Your task to perform on an android device: turn on javascript in the chrome app Image 0: 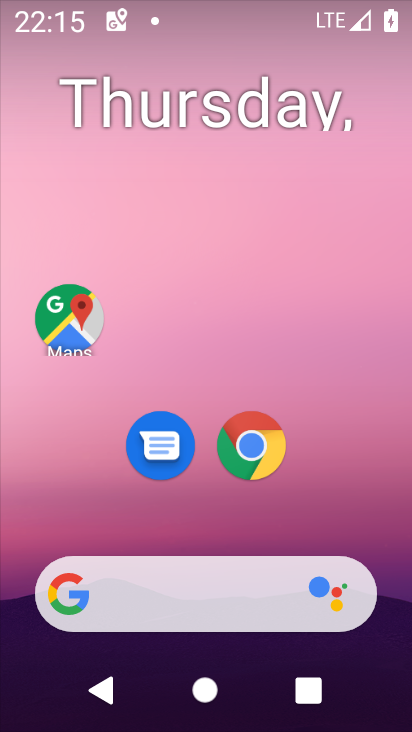
Step 0: drag from (234, 529) to (214, 194)
Your task to perform on an android device: turn on javascript in the chrome app Image 1: 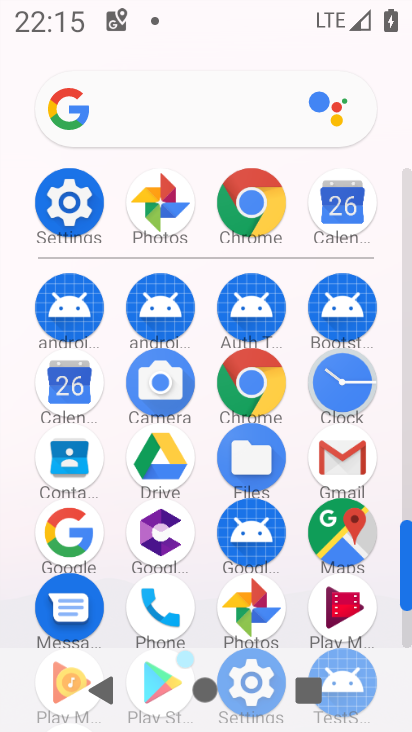
Step 1: drag from (198, 273) to (208, 103)
Your task to perform on an android device: turn on javascript in the chrome app Image 2: 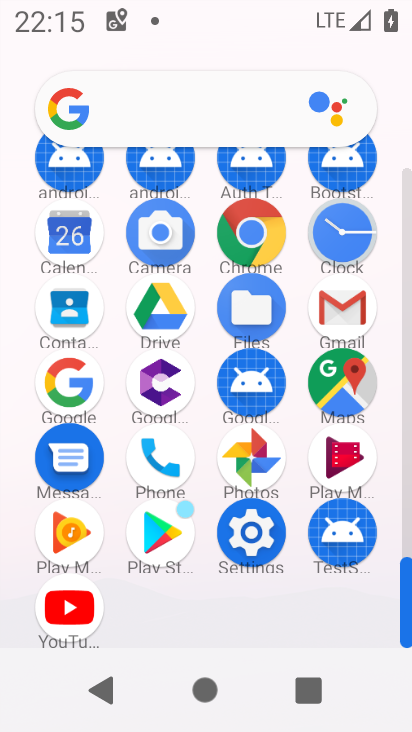
Step 2: click (243, 238)
Your task to perform on an android device: turn on javascript in the chrome app Image 3: 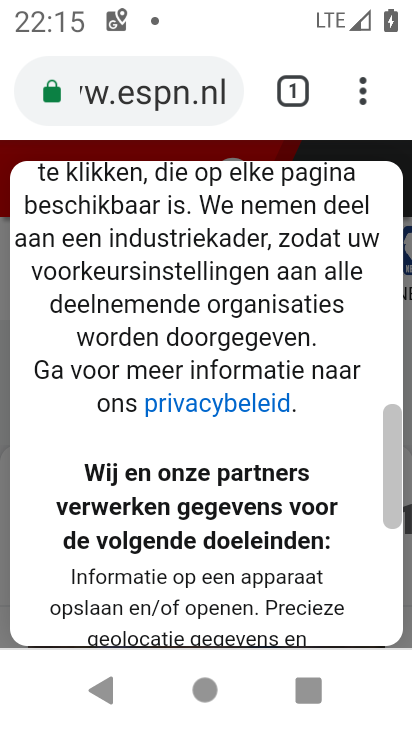
Step 3: click (366, 106)
Your task to perform on an android device: turn on javascript in the chrome app Image 4: 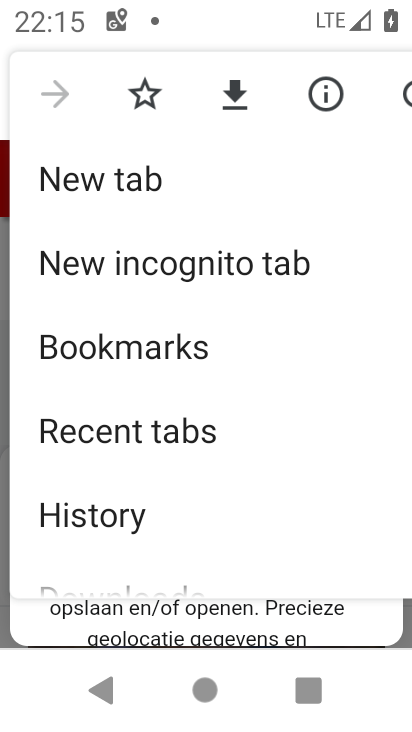
Step 4: drag from (195, 490) to (203, 165)
Your task to perform on an android device: turn on javascript in the chrome app Image 5: 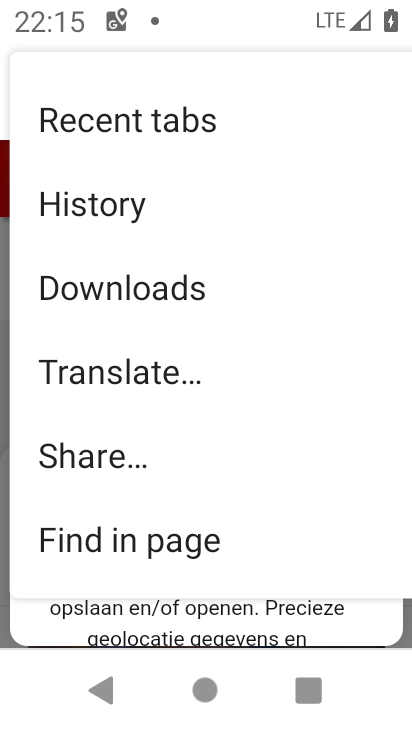
Step 5: drag from (169, 490) to (189, 203)
Your task to perform on an android device: turn on javascript in the chrome app Image 6: 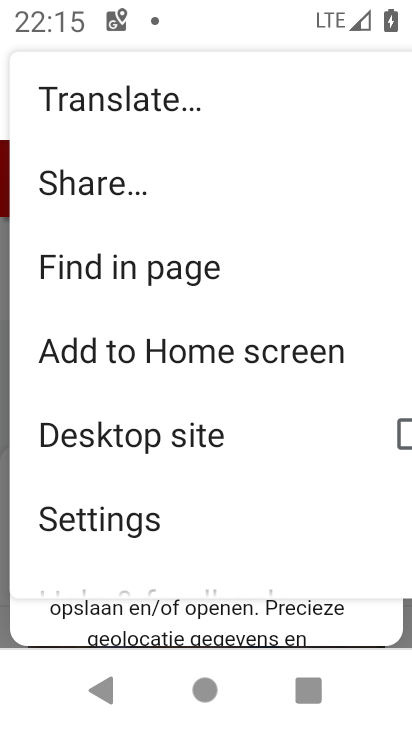
Step 6: click (165, 521)
Your task to perform on an android device: turn on javascript in the chrome app Image 7: 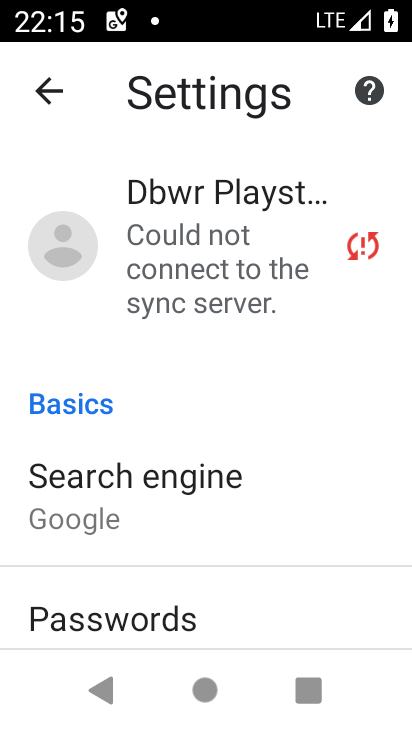
Step 7: drag from (168, 530) to (227, 201)
Your task to perform on an android device: turn on javascript in the chrome app Image 8: 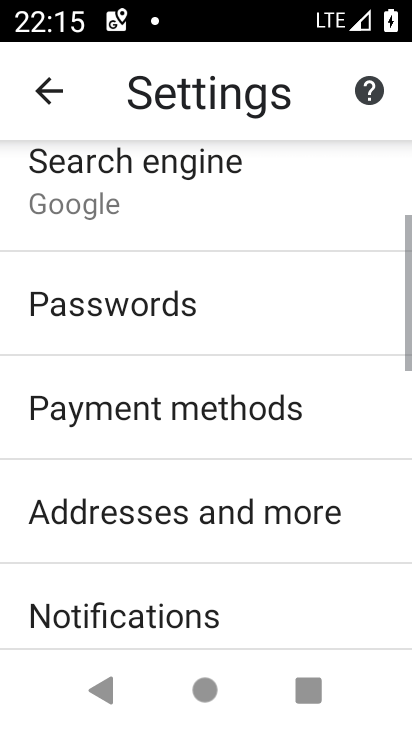
Step 8: drag from (167, 494) to (228, 186)
Your task to perform on an android device: turn on javascript in the chrome app Image 9: 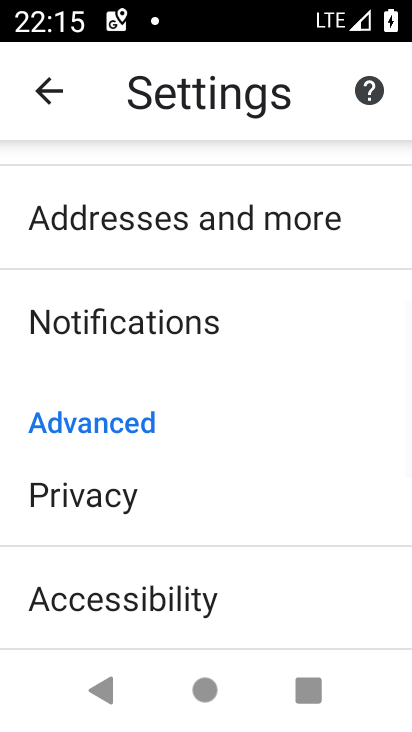
Step 9: drag from (153, 525) to (215, 220)
Your task to perform on an android device: turn on javascript in the chrome app Image 10: 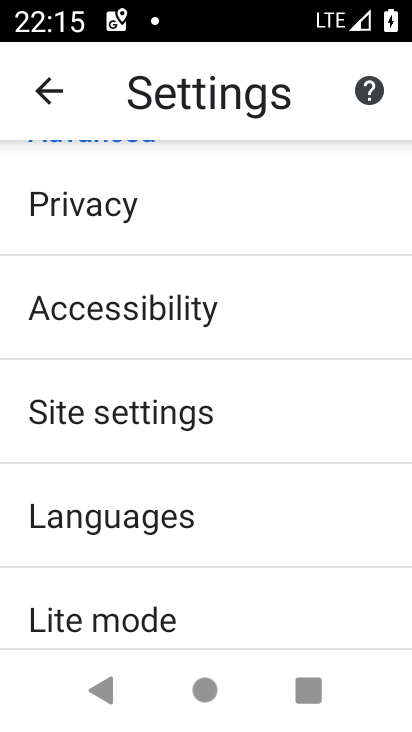
Step 10: click (156, 419)
Your task to perform on an android device: turn on javascript in the chrome app Image 11: 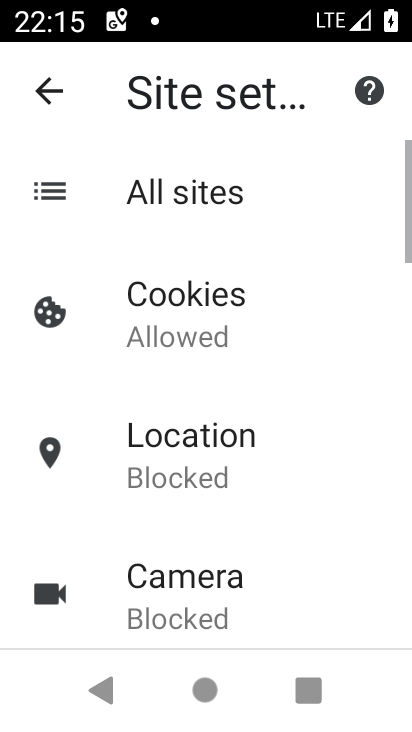
Step 11: drag from (184, 510) to (253, 250)
Your task to perform on an android device: turn on javascript in the chrome app Image 12: 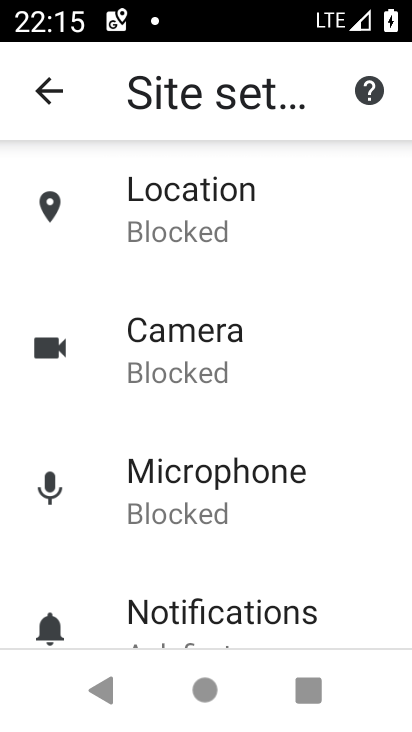
Step 12: drag from (213, 509) to (254, 174)
Your task to perform on an android device: turn on javascript in the chrome app Image 13: 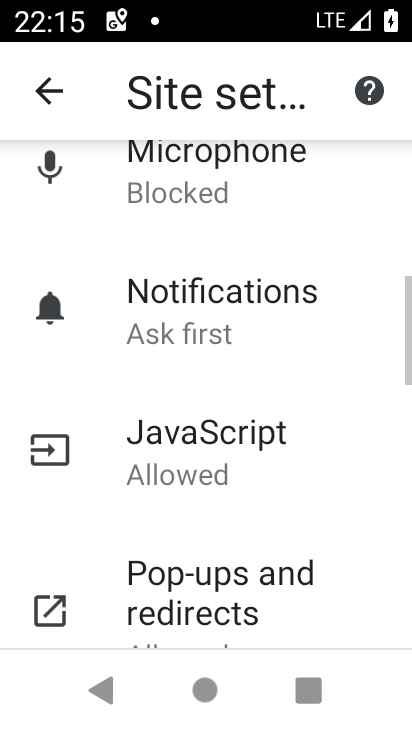
Step 13: click (223, 451)
Your task to perform on an android device: turn on javascript in the chrome app Image 14: 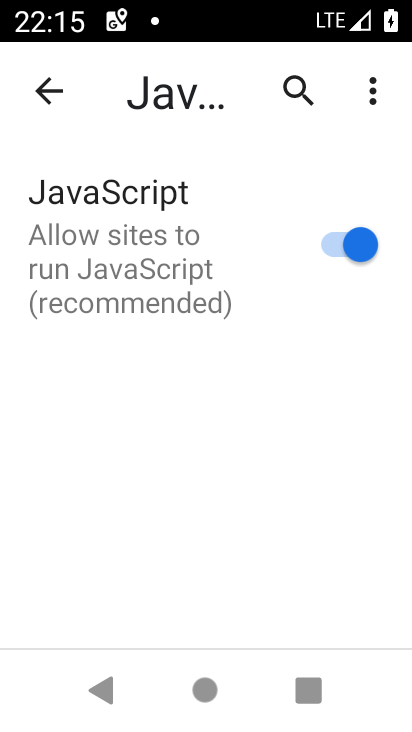
Step 14: task complete